Your task to perform on an android device: Toggle the flashlight Image 0: 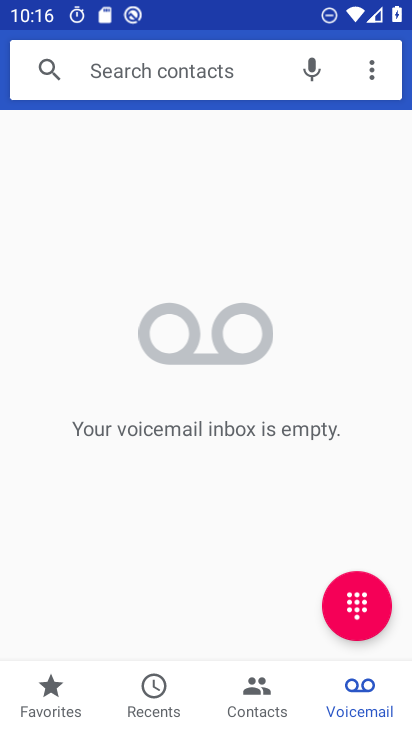
Step 0: press home button
Your task to perform on an android device: Toggle the flashlight Image 1: 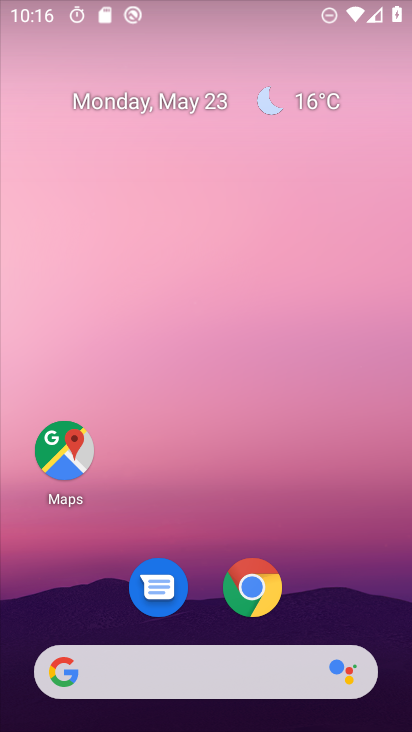
Step 1: drag from (317, 489) to (316, 50)
Your task to perform on an android device: Toggle the flashlight Image 2: 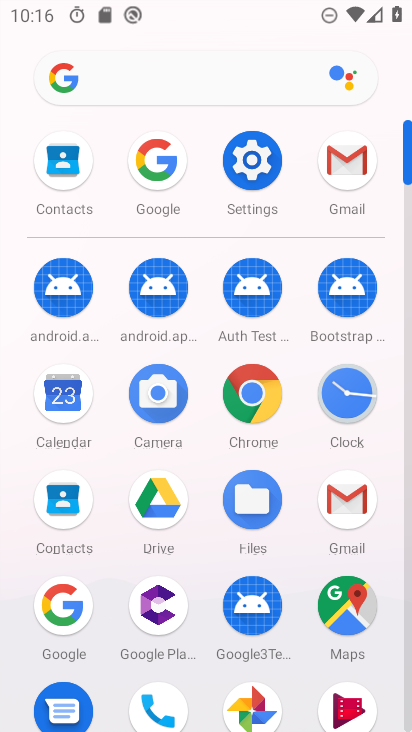
Step 2: click (255, 167)
Your task to perform on an android device: Toggle the flashlight Image 3: 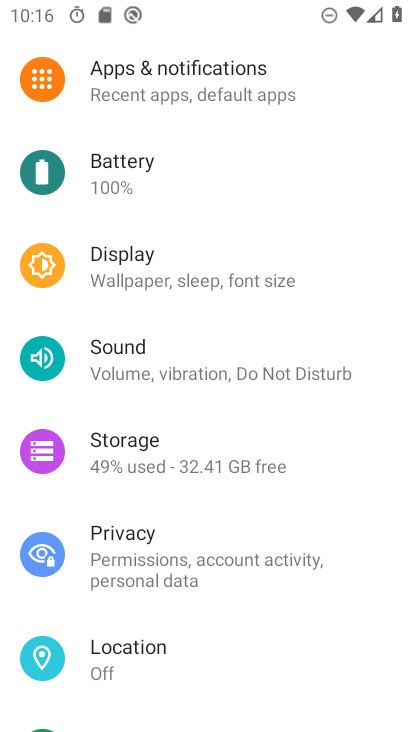
Step 3: click (255, 167)
Your task to perform on an android device: Toggle the flashlight Image 4: 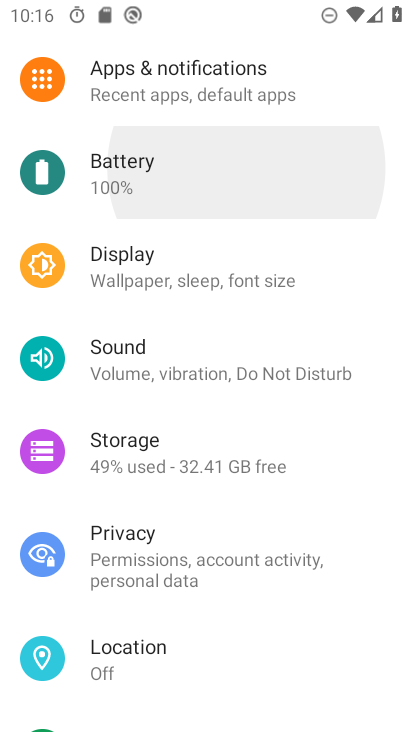
Step 4: drag from (251, 129) to (230, 692)
Your task to perform on an android device: Toggle the flashlight Image 5: 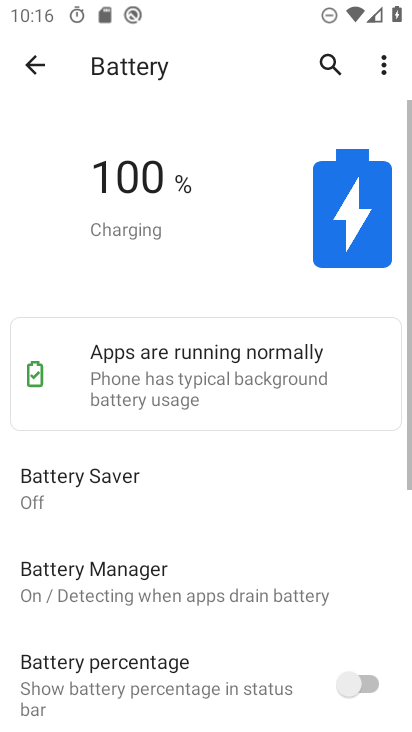
Step 5: click (37, 60)
Your task to perform on an android device: Toggle the flashlight Image 6: 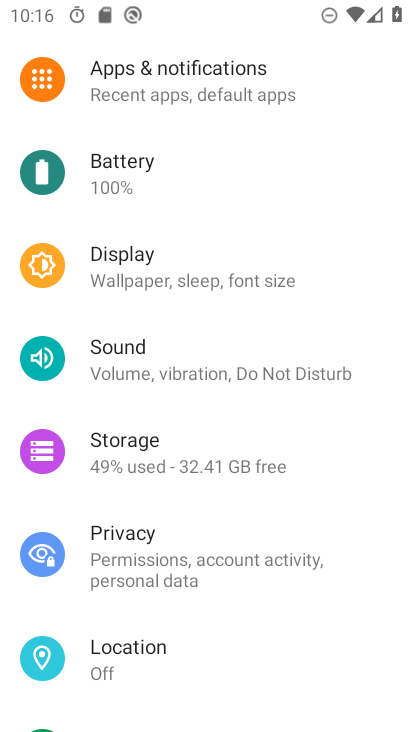
Step 6: drag from (171, 103) to (174, 727)
Your task to perform on an android device: Toggle the flashlight Image 7: 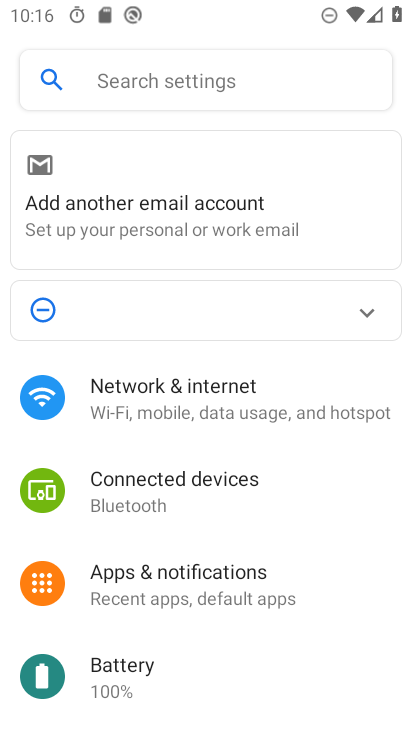
Step 7: click (196, 70)
Your task to perform on an android device: Toggle the flashlight Image 8: 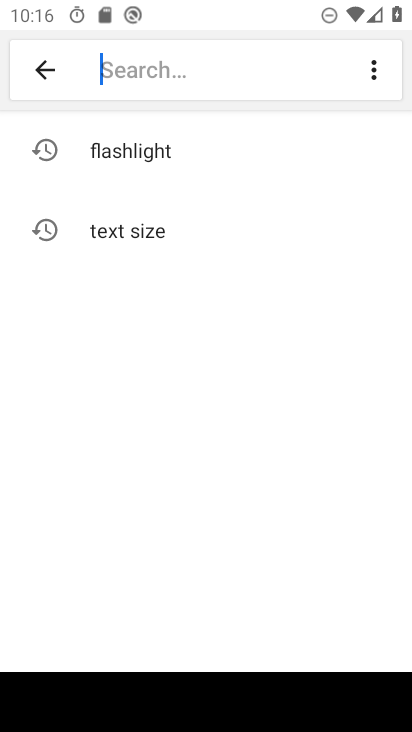
Step 8: type "fl"
Your task to perform on an android device: Toggle the flashlight Image 9: 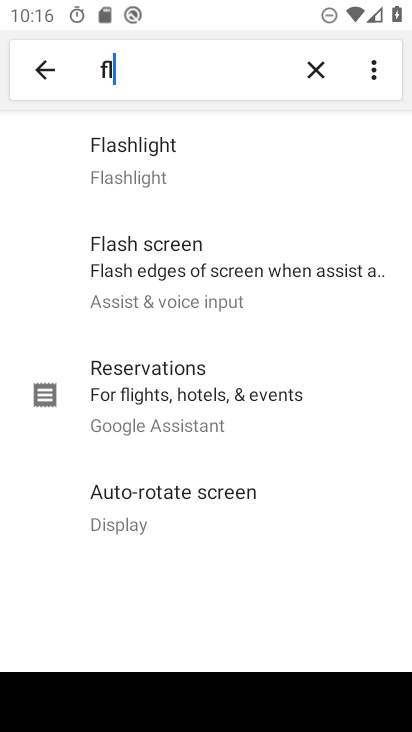
Step 9: click (177, 137)
Your task to perform on an android device: Toggle the flashlight Image 10: 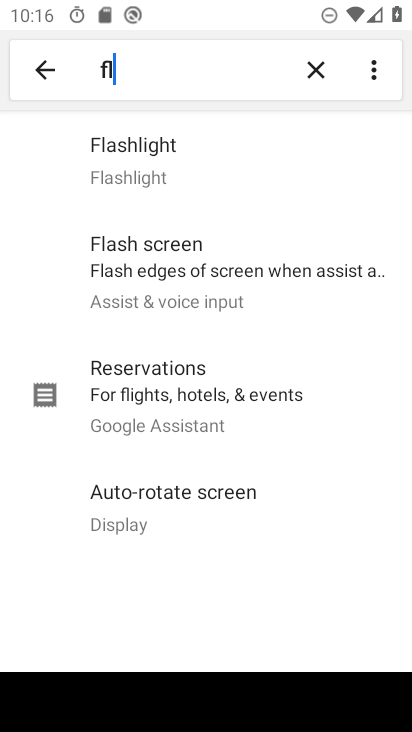
Step 10: click (138, 153)
Your task to perform on an android device: Toggle the flashlight Image 11: 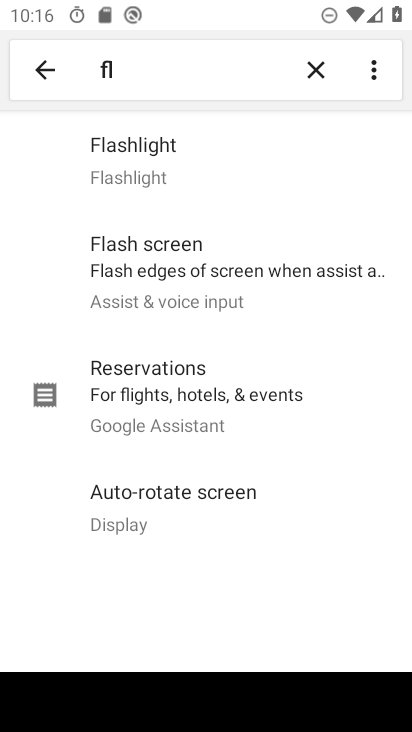
Step 11: task complete